Your task to perform on an android device: Open the phone app and click the voicemail tab. Image 0: 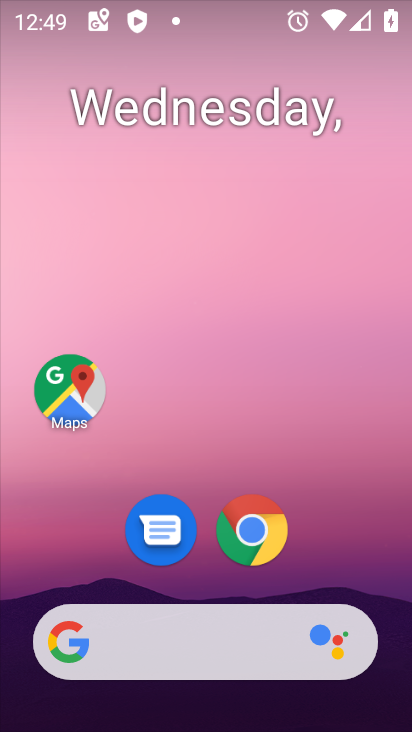
Step 0: drag from (229, 562) to (294, 128)
Your task to perform on an android device: Open the phone app and click the voicemail tab. Image 1: 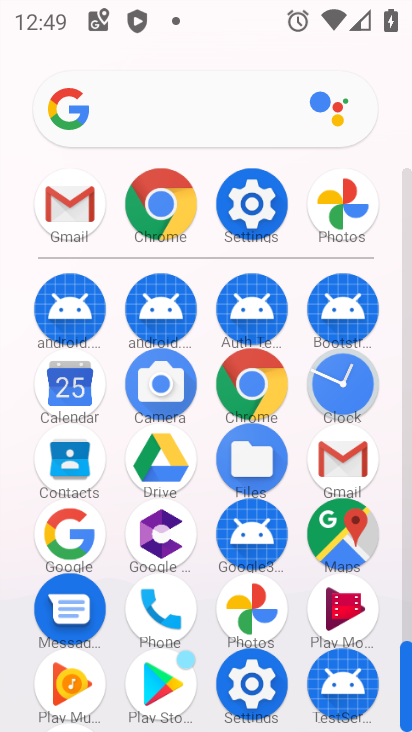
Step 1: click (156, 601)
Your task to perform on an android device: Open the phone app and click the voicemail tab. Image 2: 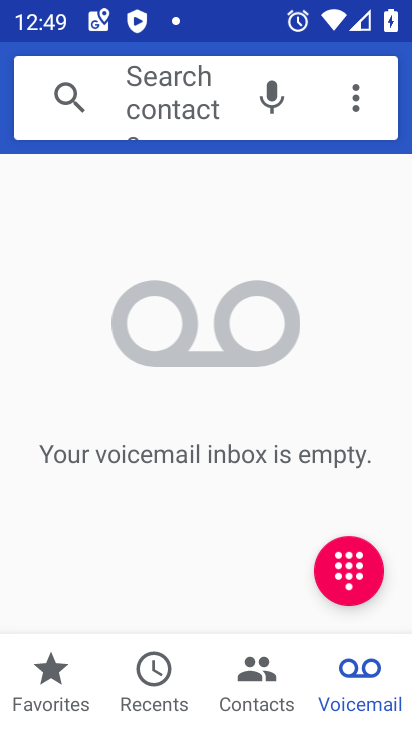
Step 2: click (353, 682)
Your task to perform on an android device: Open the phone app and click the voicemail tab. Image 3: 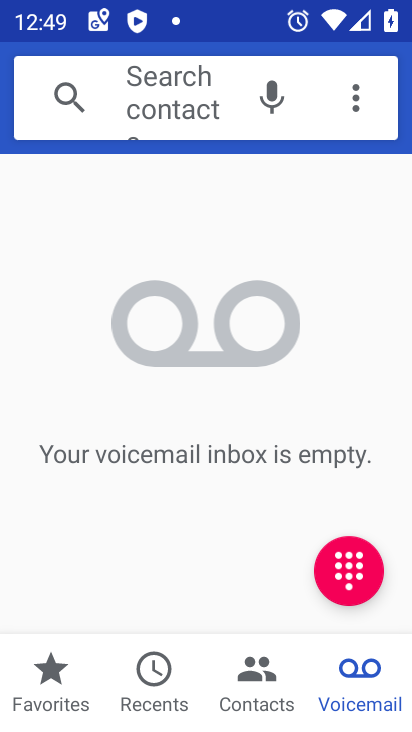
Step 3: task complete